Your task to perform on an android device: open a new tab in the chrome app Image 0: 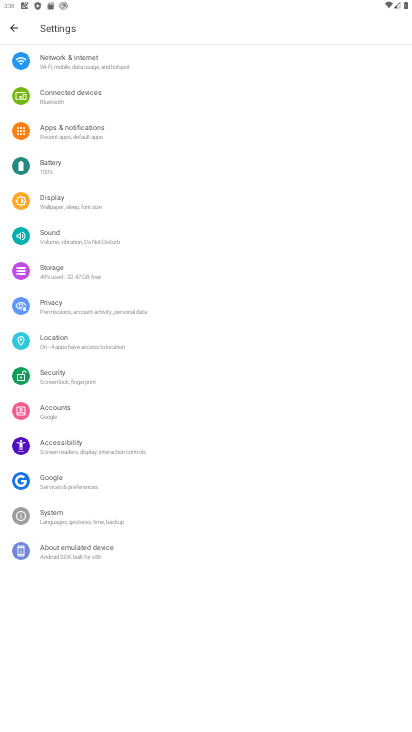
Step 0: press home button
Your task to perform on an android device: open a new tab in the chrome app Image 1: 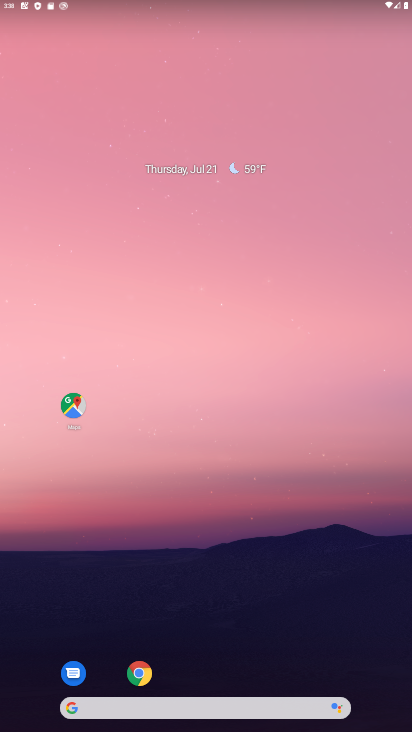
Step 1: click (140, 674)
Your task to perform on an android device: open a new tab in the chrome app Image 2: 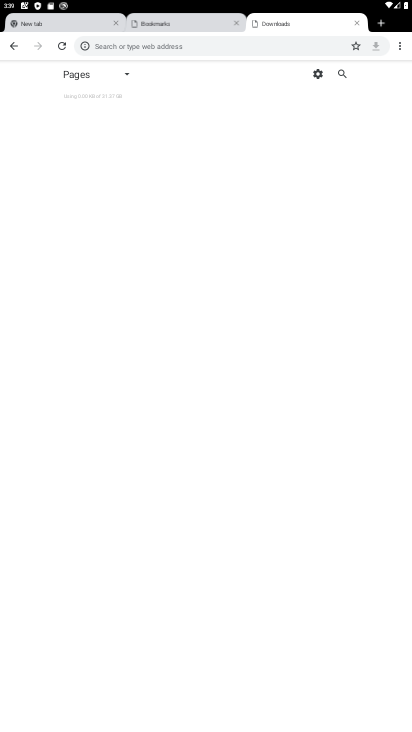
Step 2: click (400, 51)
Your task to perform on an android device: open a new tab in the chrome app Image 3: 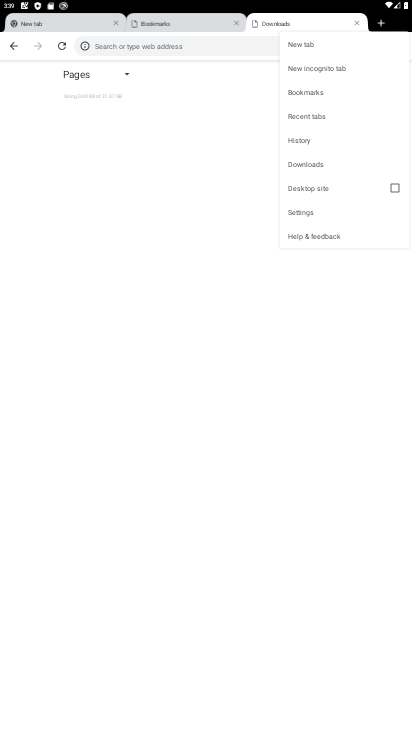
Step 3: click (299, 40)
Your task to perform on an android device: open a new tab in the chrome app Image 4: 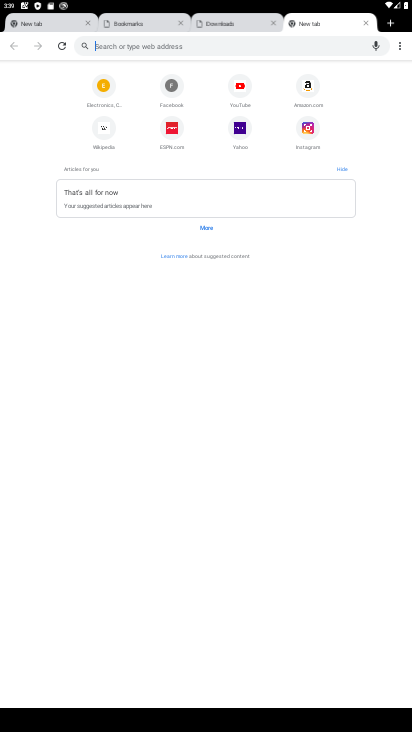
Step 4: task complete